Your task to perform on an android device: add a contact Image 0: 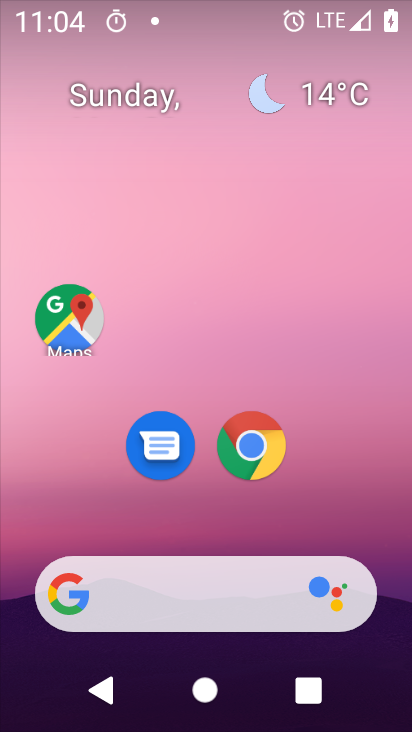
Step 0: drag from (227, 524) to (195, 130)
Your task to perform on an android device: add a contact Image 1: 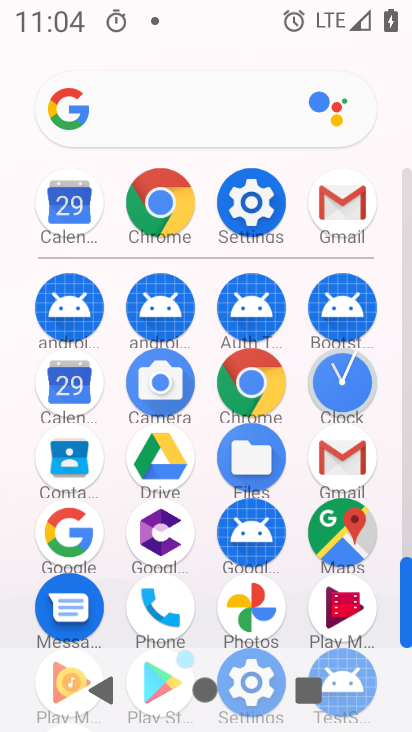
Step 1: click (85, 482)
Your task to perform on an android device: add a contact Image 2: 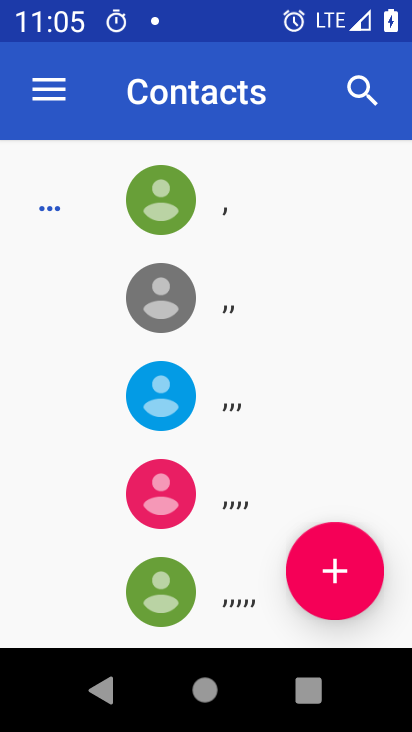
Step 2: drag from (202, 527) to (273, 213)
Your task to perform on an android device: add a contact Image 3: 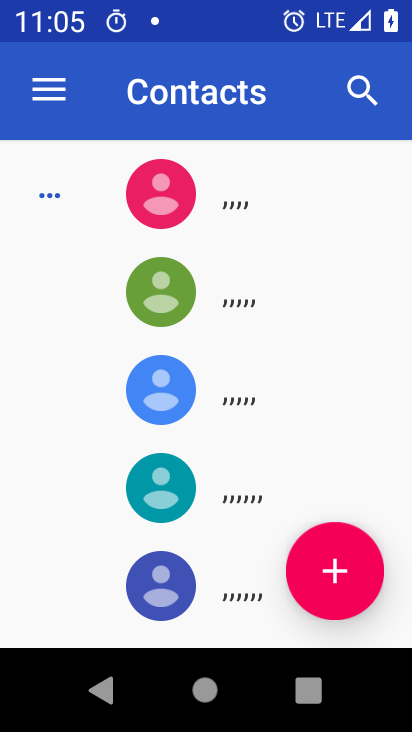
Step 3: click (335, 563)
Your task to perform on an android device: add a contact Image 4: 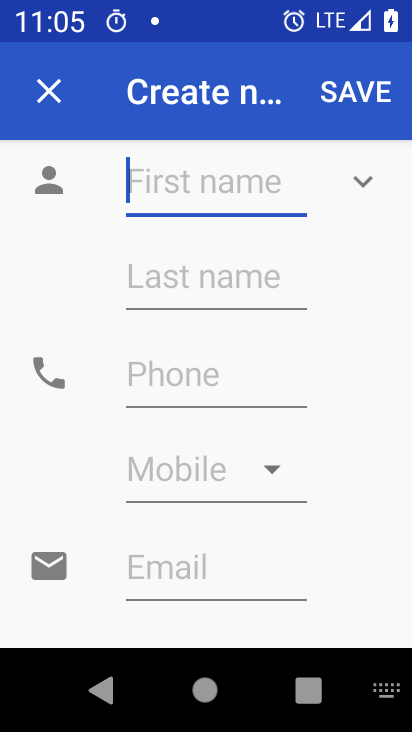
Step 4: type "jkjn"
Your task to perform on an android device: add a contact Image 5: 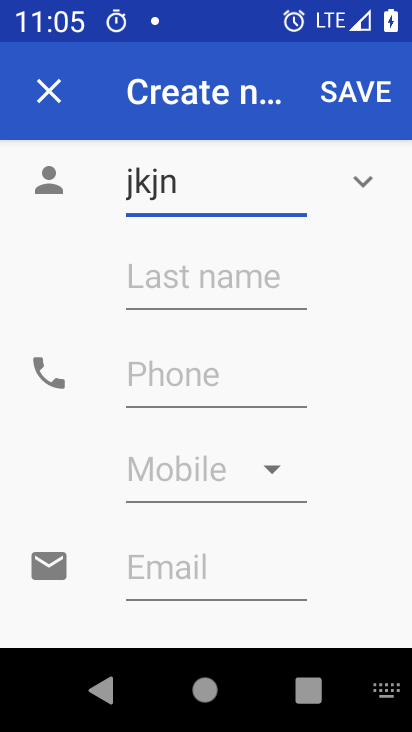
Step 5: click (384, 87)
Your task to perform on an android device: add a contact Image 6: 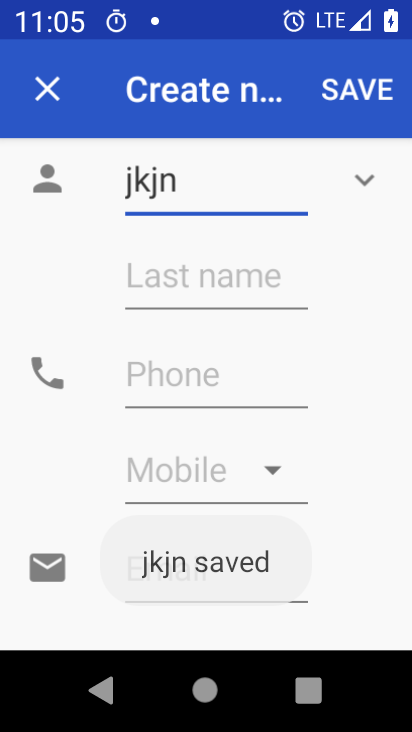
Step 6: task complete